Your task to perform on an android device: search for starred emails in the gmail app Image 0: 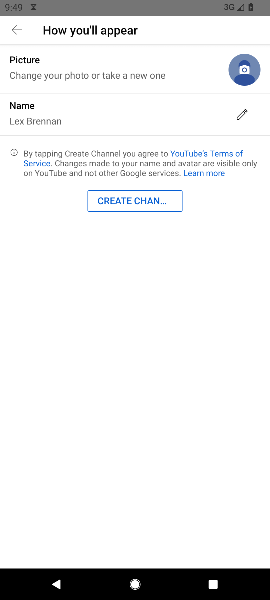
Step 0: press home button
Your task to perform on an android device: search for starred emails in the gmail app Image 1: 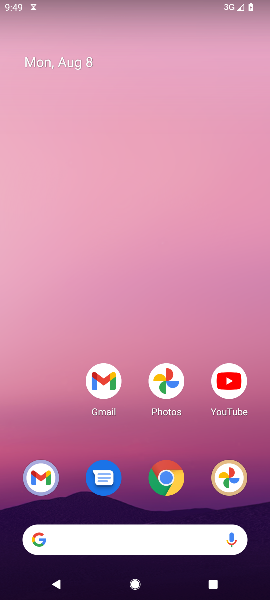
Step 1: click (104, 379)
Your task to perform on an android device: search for starred emails in the gmail app Image 2: 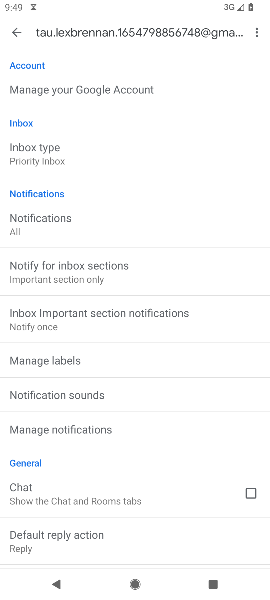
Step 2: click (21, 34)
Your task to perform on an android device: search for starred emails in the gmail app Image 3: 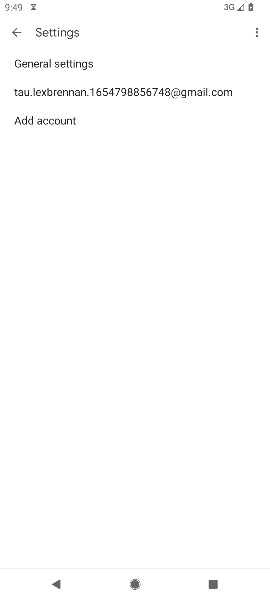
Step 3: click (21, 34)
Your task to perform on an android device: search for starred emails in the gmail app Image 4: 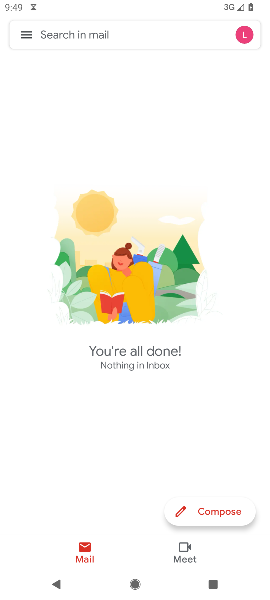
Step 4: click (21, 34)
Your task to perform on an android device: search for starred emails in the gmail app Image 5: 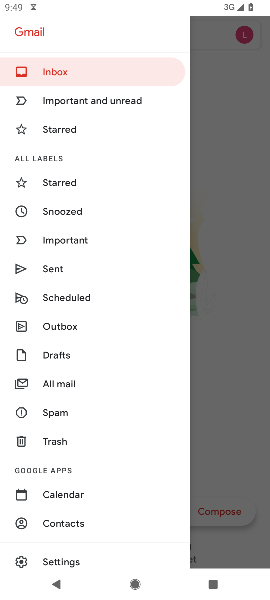
Step 5: click (55, 189)
Your task to perform on an android device: search for starred emails in the gmail app Image 6: 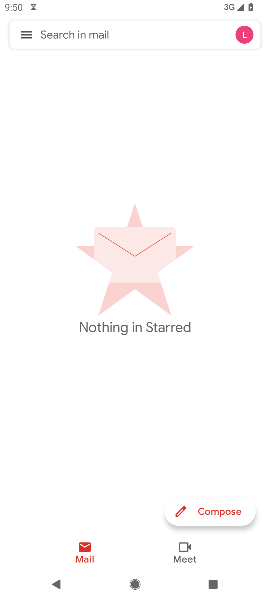
Step 6: task complete